Your task to perform on an android device: turn on wifi Image 0: 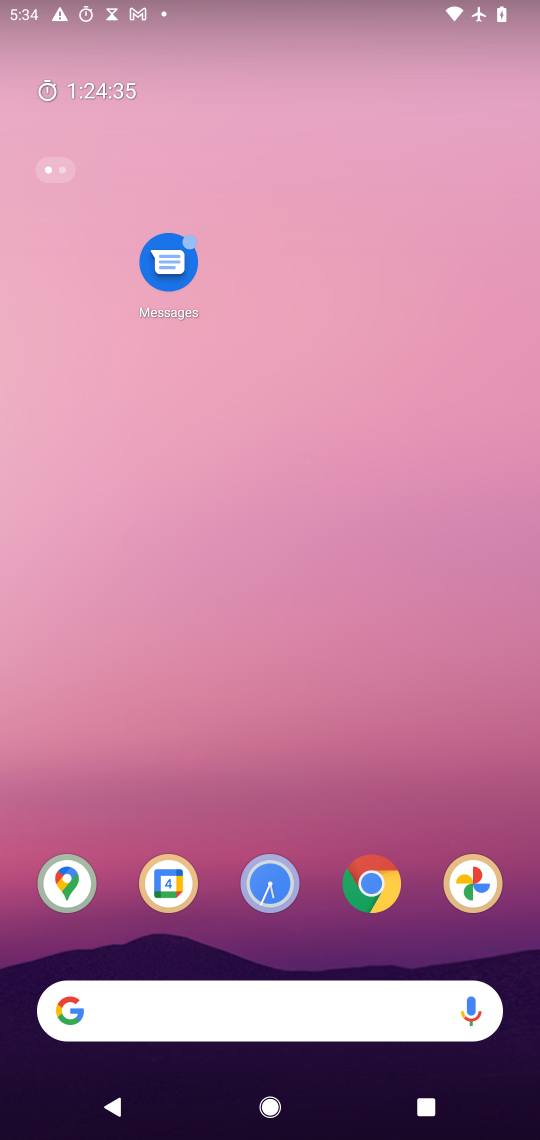
Step 0: drag from (308, 720) to (308, 146)
Your task to perform on an android device: turn on wifi Image 1: 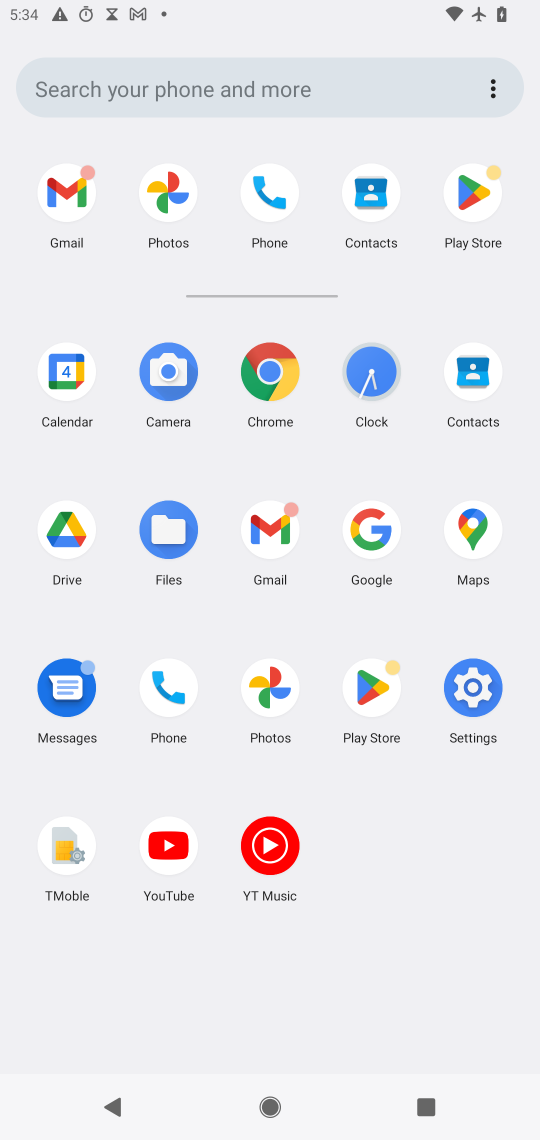
Step 1: click (464, 693)
Your task to perform on an android device: turn on wifi Image 2: 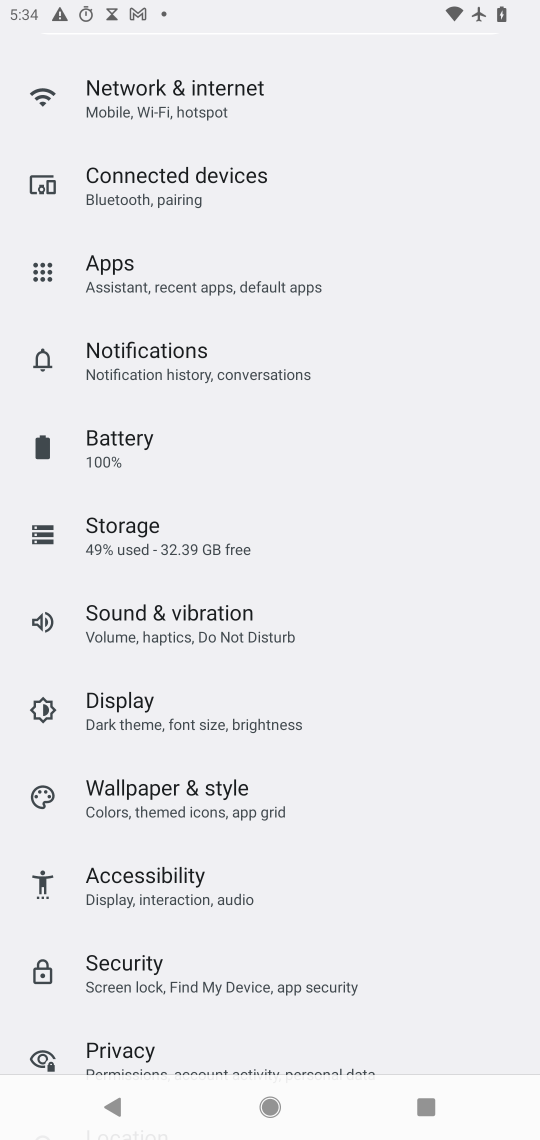
Step 2: drag from (145, 140) to (228, 709)
Your task to perform on an android device: turn on wifi Image 3: 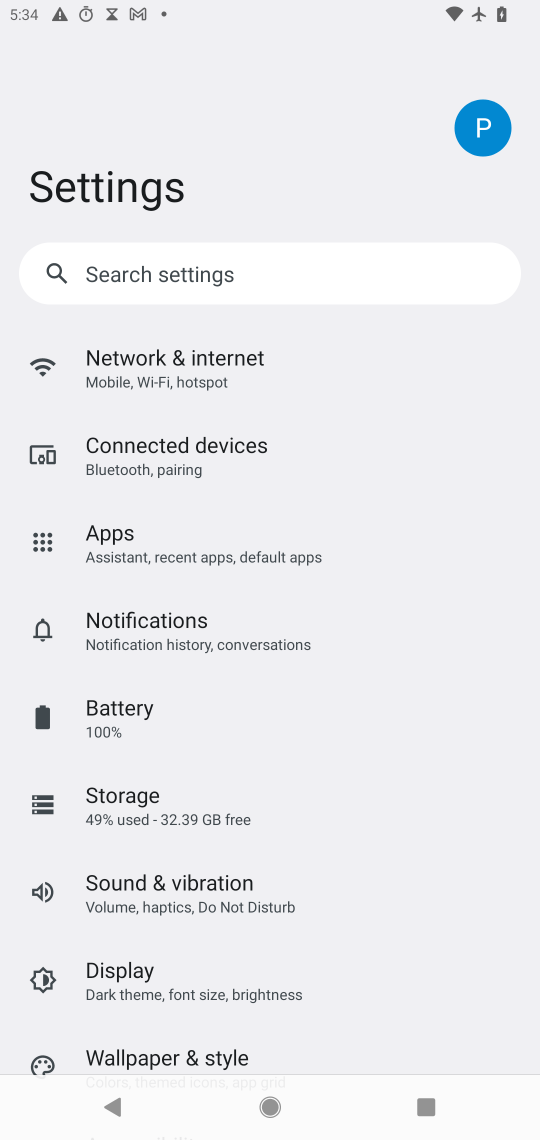
Step 3: click (178, 383)
Your task to perform on an android device: turn on wifi Image 4: 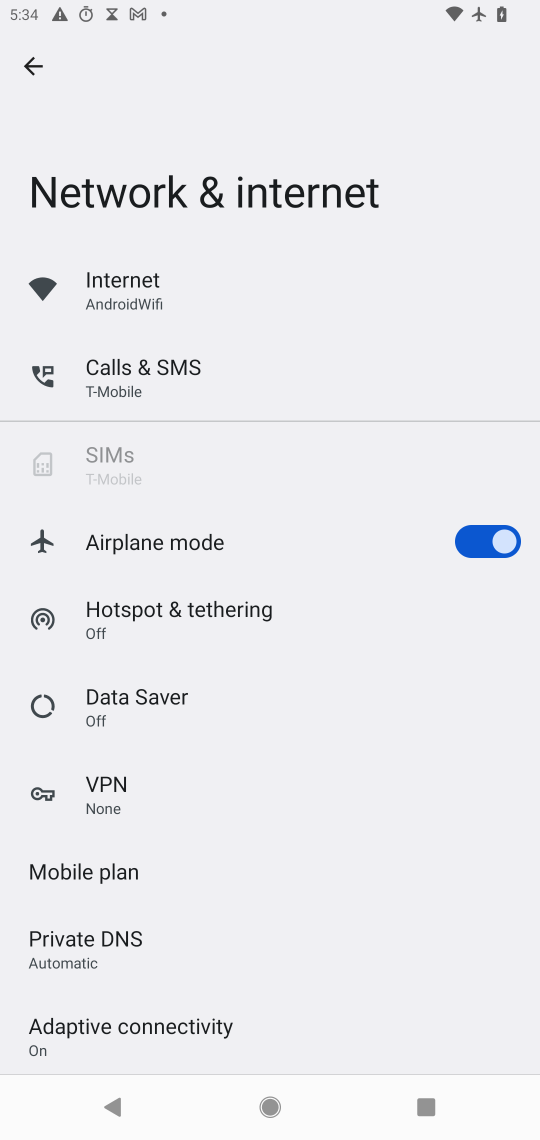
Step 4: click (136, 283)
Your task to perform on an android device: turn on wifi Image 5: 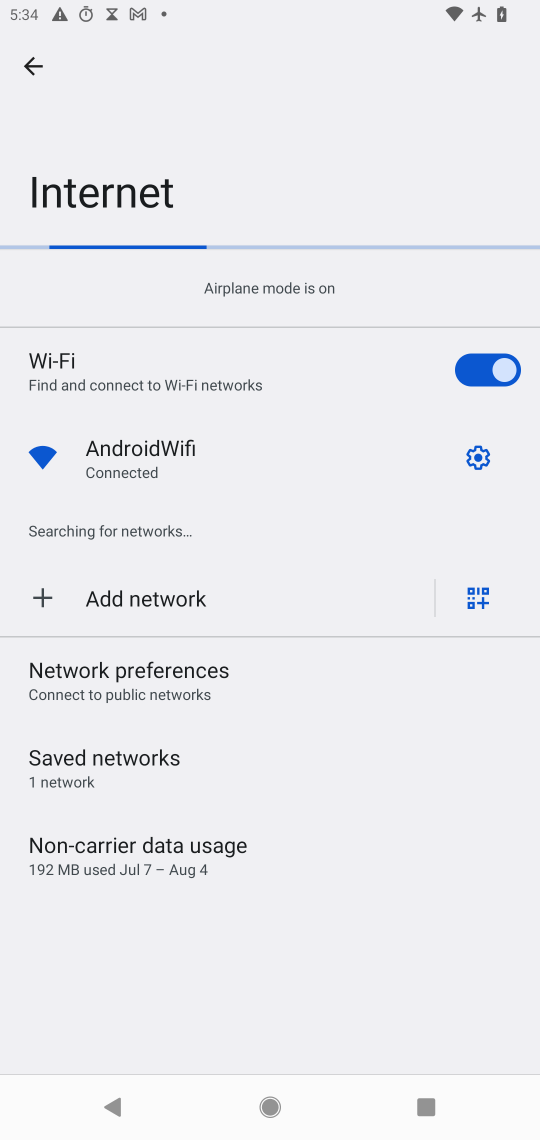
Step 5: task complete